Your task to perform on an android device: When is my next appointment? Image 0: 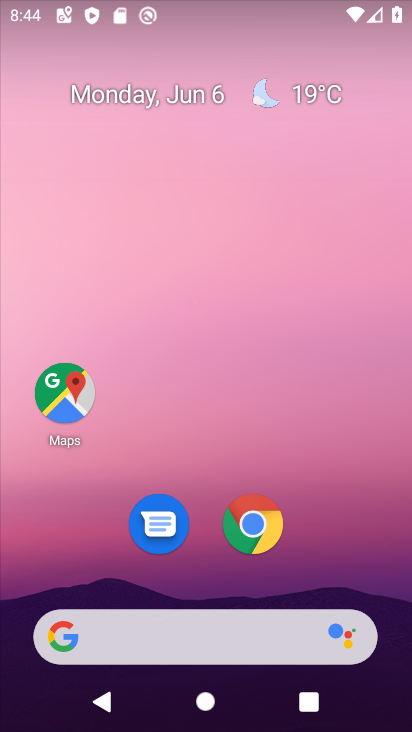
Step 0: drag from (239, 402) to (246, 2)
Your task to perform on an android device: When is my next appointment? Image 1: 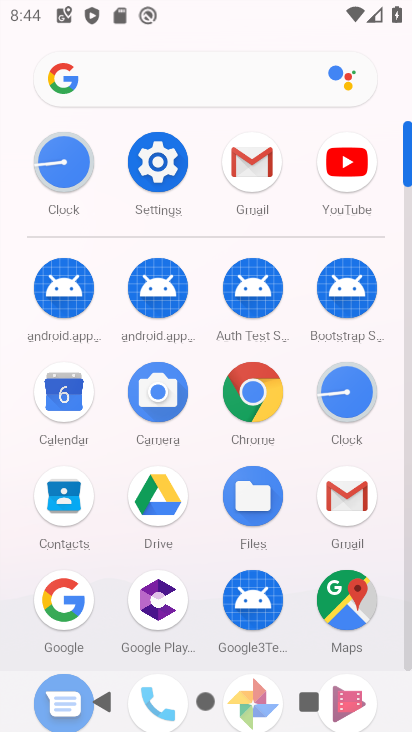
Step 1: click (66, 396)
Your task to perform on an android device: When is my next appointment? Image 2: 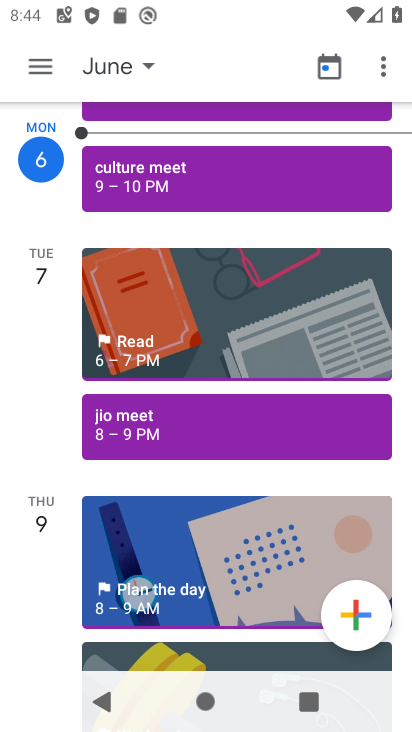
Step 2: task complete